Your task to perform on an android device: open sync settings in chrome Image 0: 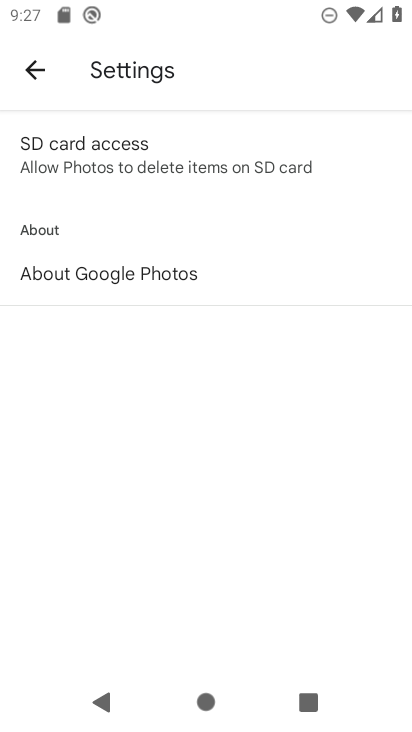
Step 0: press home button
Your task to perform on an android device: open sync settings in chrome Image 1: 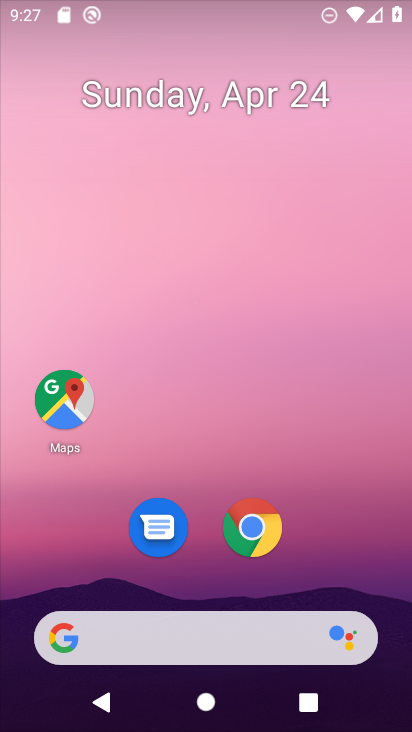
Step 1: drag from (379, 617) to (314, 288)
Your task to perform on an android device: open sync settings in chrome Image 2: 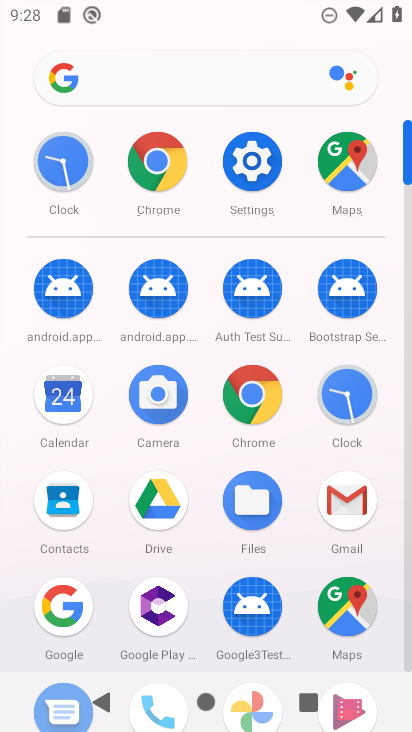
Step 2: click (225, 410)
Your task to perform on an android device: open sync settings in chrome Image 3: 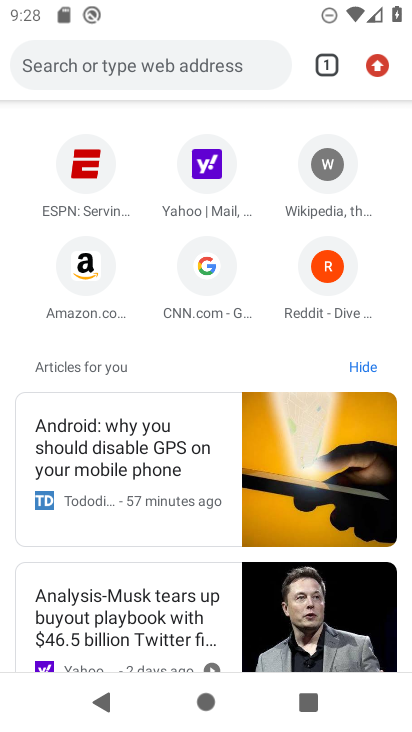
Step 3: click (374, 67)
Your task to perform on an android device: open sync settings in chrome Image 4: 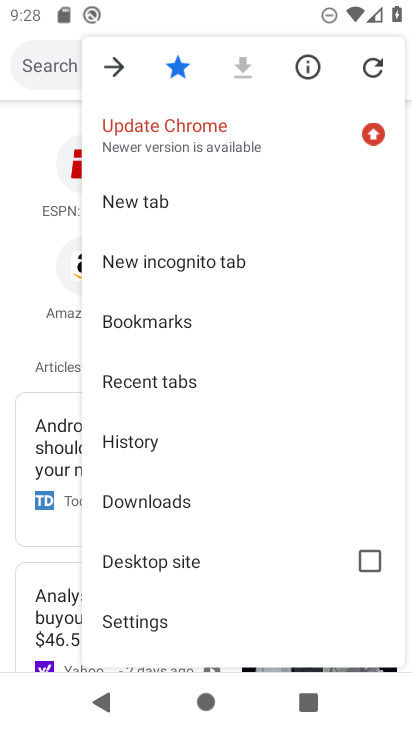
Step 4: click (203, 624)
Your task to perform on an android device: open sync settings in chrome Image 5: 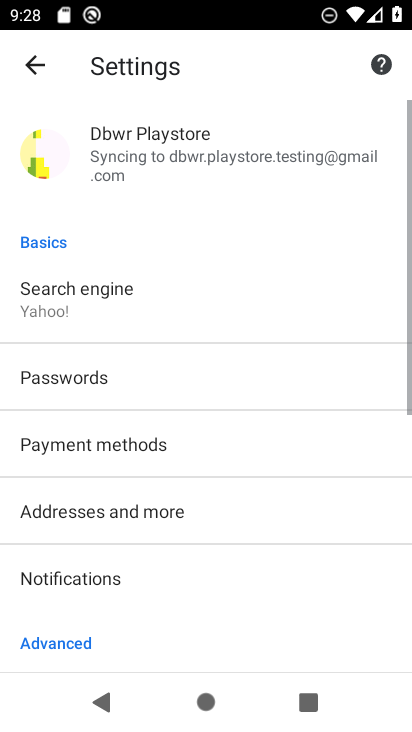
Step 5: drag from (210, 627) to (276, 127)
Your task to perform on an android device: open sync settings in chrome Image 6: 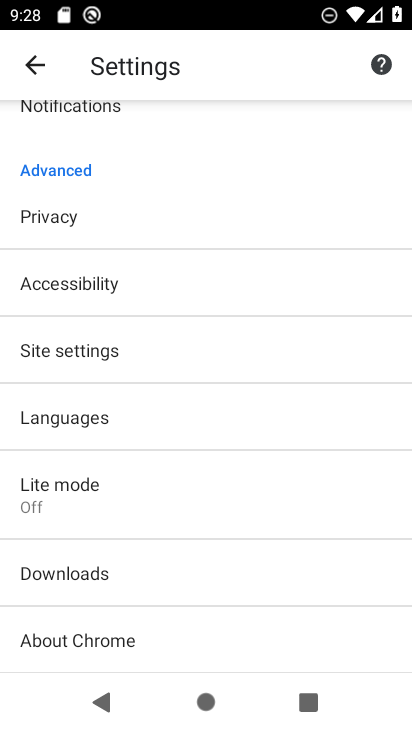
Step 6: click (200, 344)
Your task to perform on an android device: open sync settings in chrome Image 7: 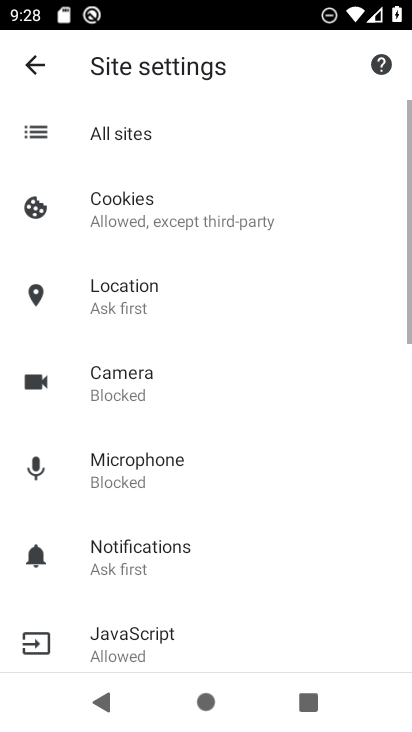
Step 7: drag from (95, 654) to (248, 164)
Your task to perform on an android device: open sync settings in chrome Image 8: 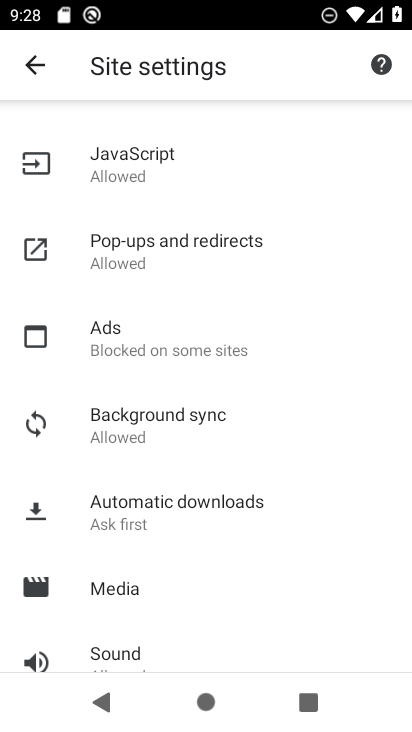
Step 8: click (147, 418)
Your task to perform on an android device: open sync settings in chrome Image 9: 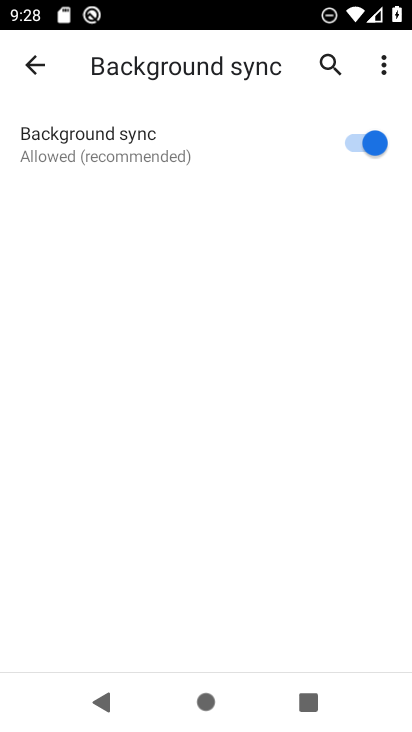
Step 9: task complete